Your task to perform on an android device: toggle pop-ups in chrome Image 0: 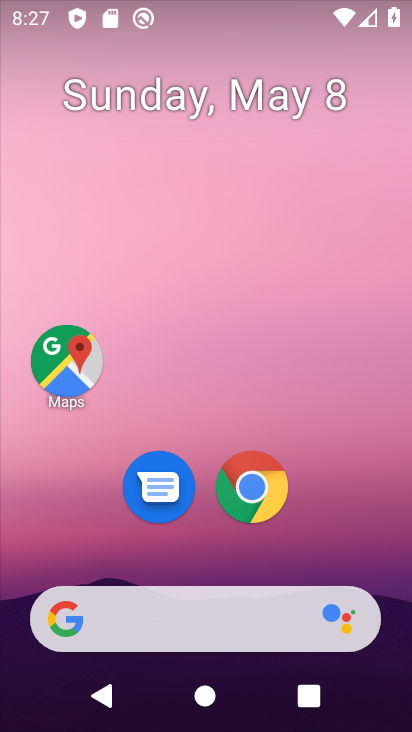
Step 0: click (247, 495)
Your task to perform on an android device: toggle pop-ups in chrome Image 1: 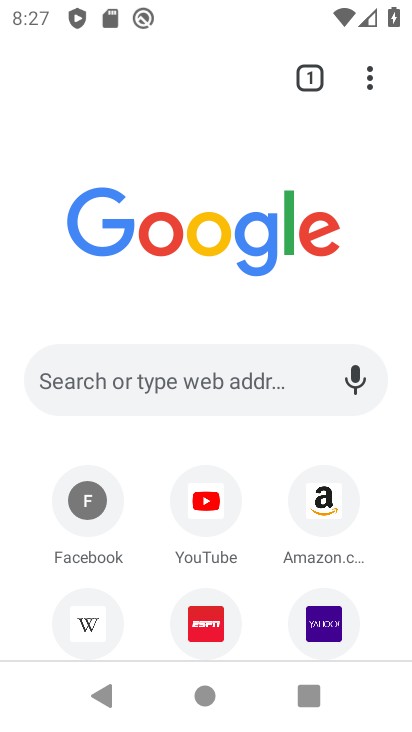
Step 1: click (368, 87)
Your task to perform on an android device: toggle pop-ups in chrome Image 2: 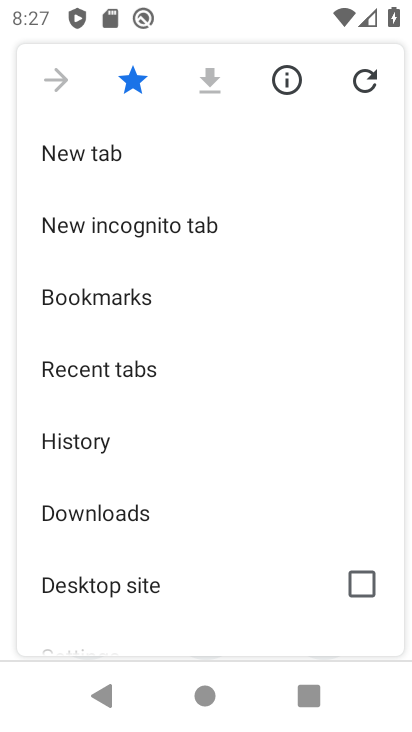
Step 2: drag from (125, 570) to (132, 328)
Your task to perform on an android device: toggle pop-ups in chrome Image 3: 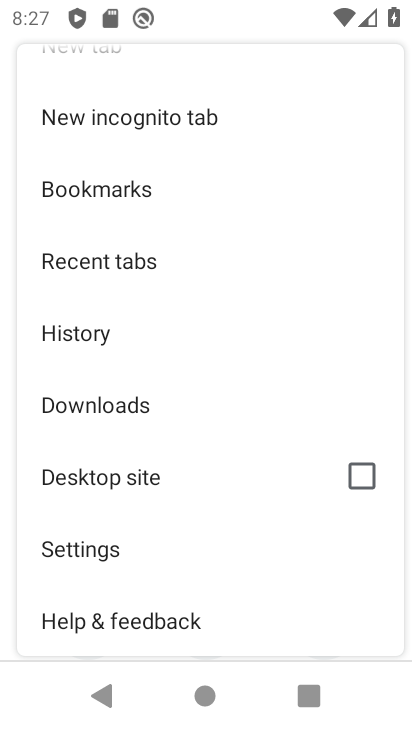
Step 3: click (108, 546)
Your task to perform on an android device: toggle pop-ups in chrome Image 4: 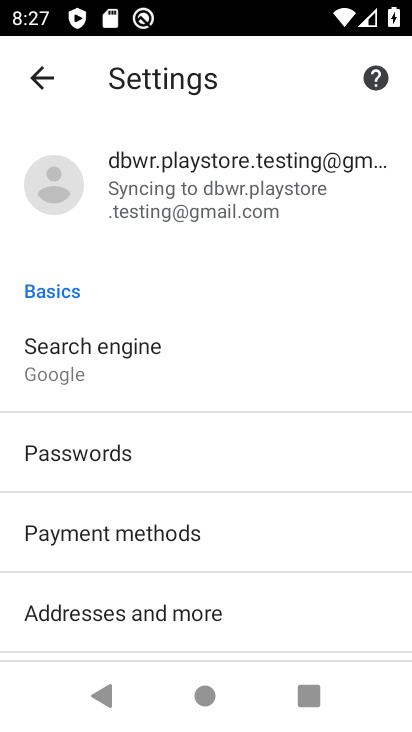
Step 4: drag from (172, 570) to (192, 325)
Your task to perform on an android device: toggle pop-ups in chrome Image 5: 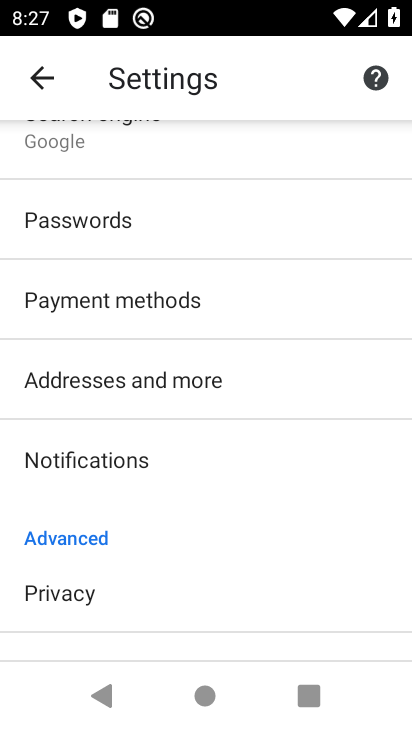
Step 5: drag from (159, 562) to (178, 350)
Your task to perform on an android device: toggle pop-ups in chrome Image 6: 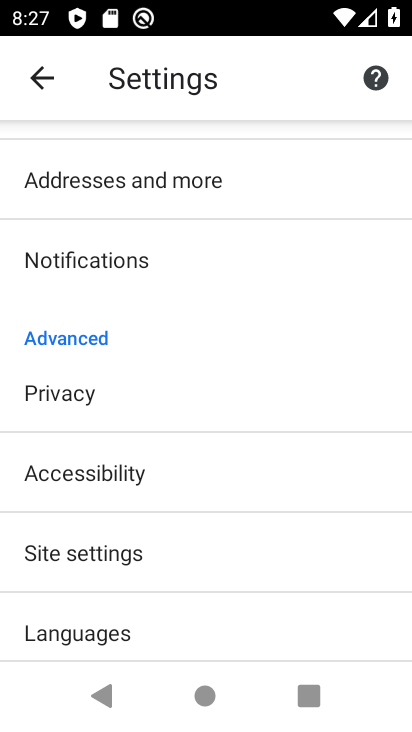
Step 6: click (127, 565)
Your task to perform on an android device: toggle pop-ups in chrome Image 7: 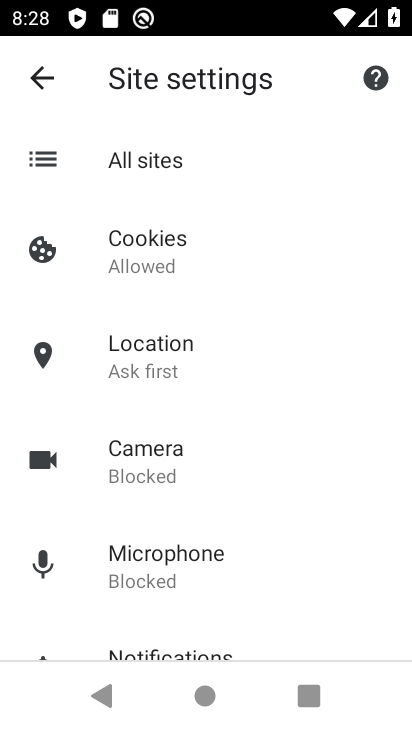
Step 7: drag from (205, 614) to (294, 258)
Your task to perform on an android device: toggle pop-ups in chrome Image 8: 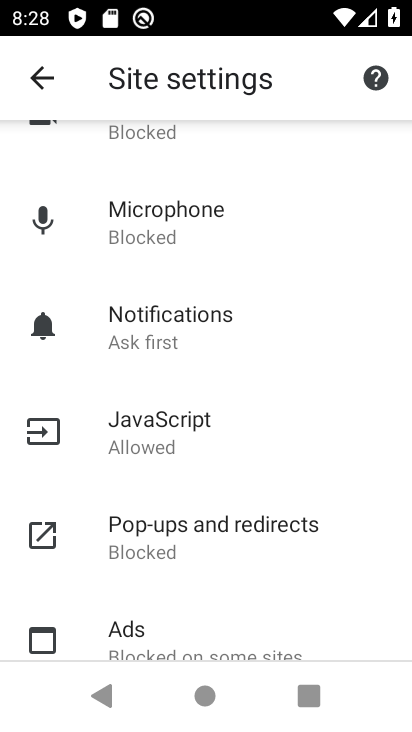
Step 8: click (199, 516)
Your task to perform on an android device: toggle pop-ups in chrome Image 9: 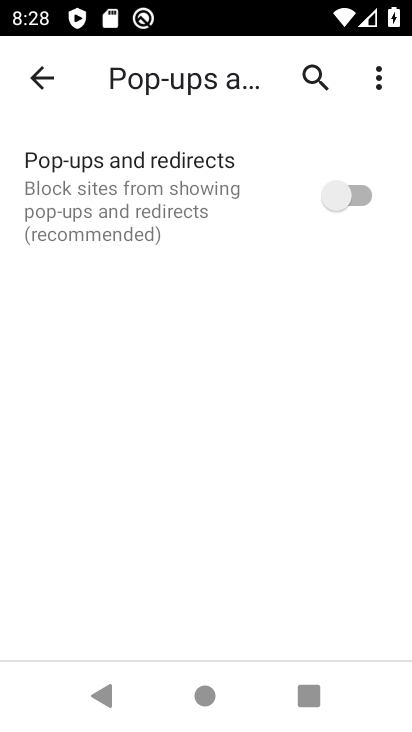
Step 9: click (356, 189)
Your task to perform on an android device: toggle pop-ups in chrome Image 10: 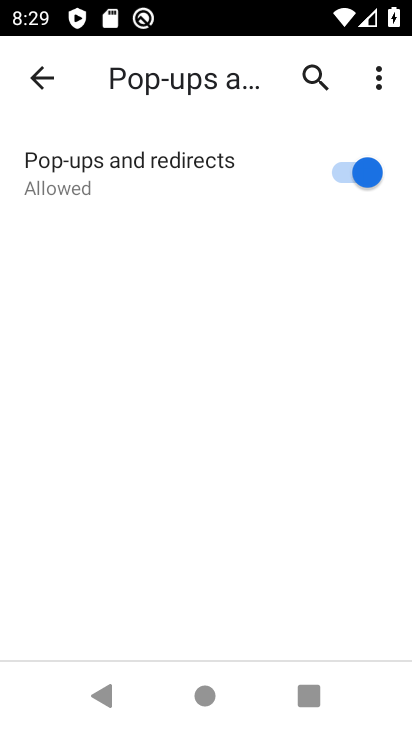
Step 10: task complete